Your task to perform on an android device: open chrome and create a bookmark for the current page Image 0: 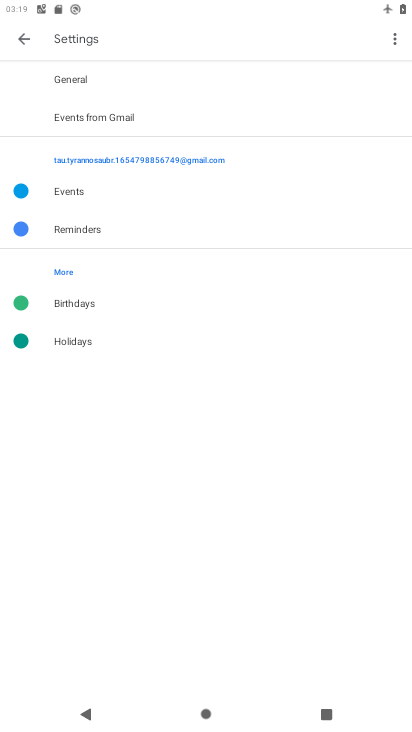
Step 0: press home button
Your task to perform on an android device: open chrome and create a bookmark for the current page Image 1: 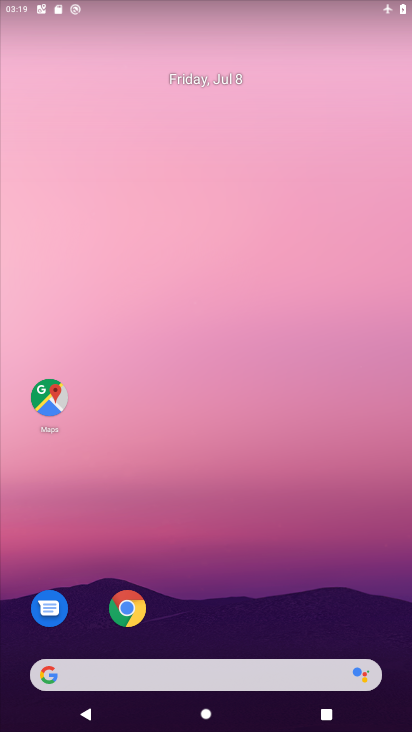
Step 1: drag from (289, 578) to (270, 228)
Your task to perform on an android device: open chrome and create a bookmark for the current page Image 2: 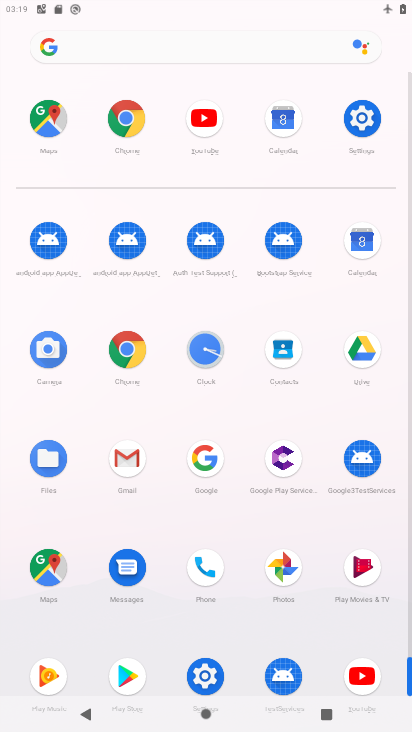
Step 2: click (121, 116)
Your task to perform on an android device: open chrome and create a bookmark for the current page Image 3: 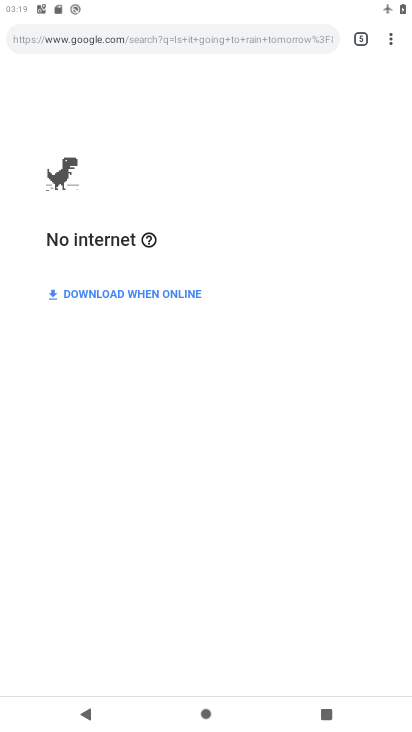
Step 3: click (395, 47)
Your task to perform on an android device: open chrome and create a bookmark for the current page Image 4: 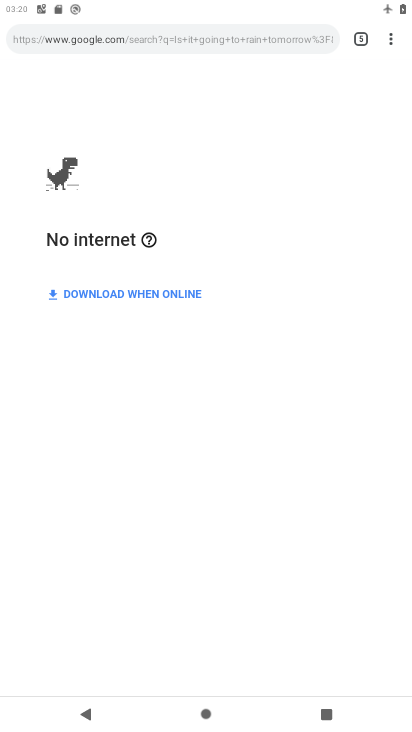
Step 4: click (391, 37)
Your task to perform on an android device: open chrome and create a bookmark for the current page Image 5: 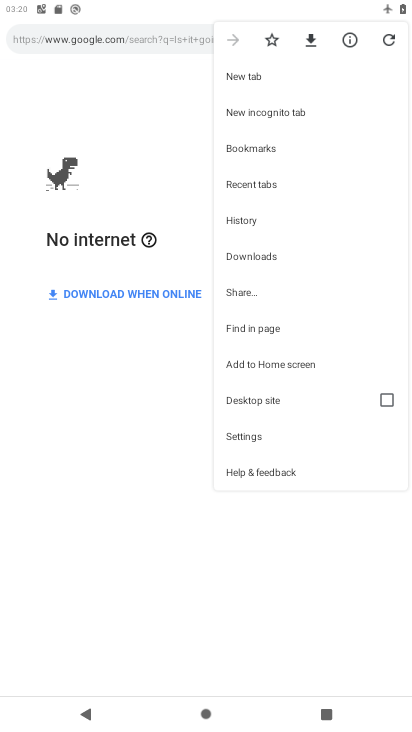
Step 5: click (279, 44)
Your task to perform on an android device: open chrome and create a bookmark for the current page Image 6: 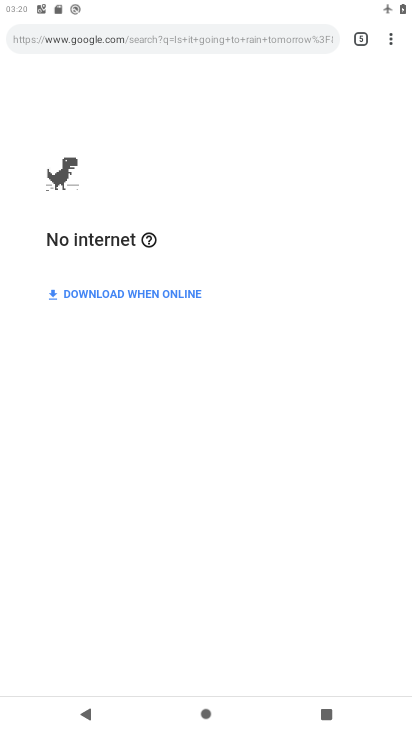
Step 6: click (383, 36)
Your task to perform on an android device: open chrome and create a bookmark for the current page Image 7: 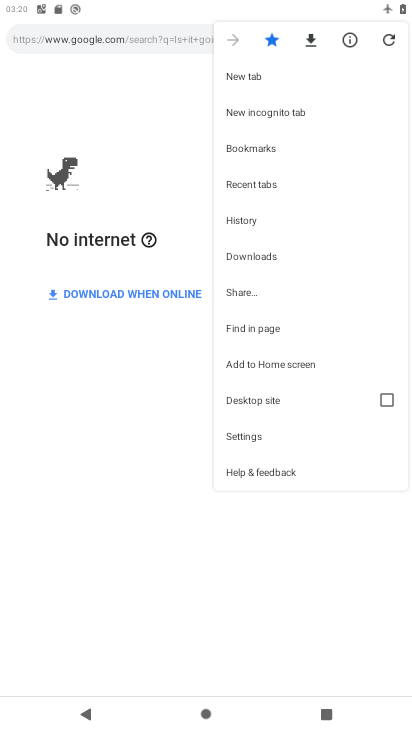
Step 7: task complete